Your task to perform on an android device: open the mobile data screen to see how much data has been used Image 0: 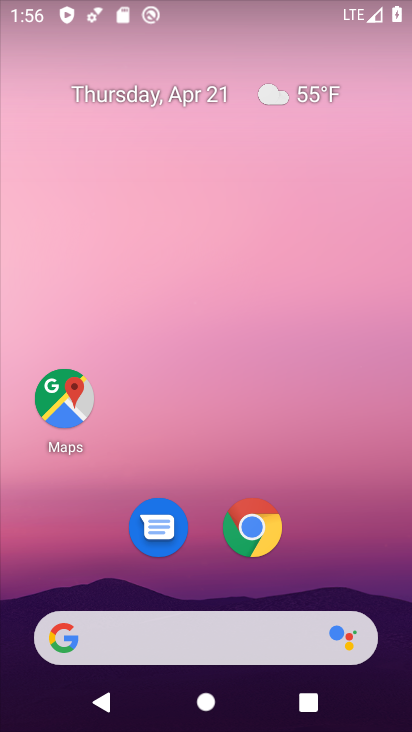
Step 0: drag from (370, 572) to (380, 183)
Your task to perform on an android device: open the mobile data screen to see how much data has been used Image 1: 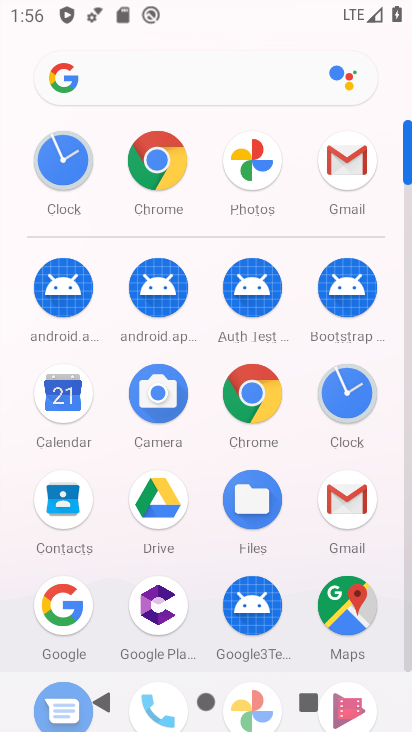
Step 1: drag from (195, 494) to (205, 382)
Your task to perform on an android device: open the mobile data screen to see how much data has been used Image 2: 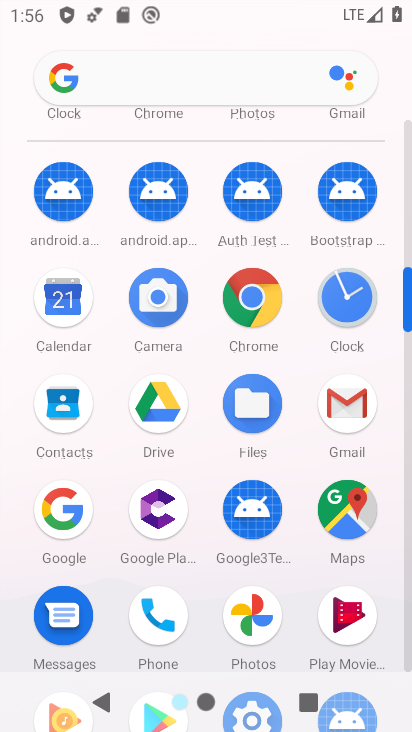
Step 2: drag from (189, 545) to (207, 429)
Your task to perform on an android device: open the mobile data screen to see how much data has been used Image 3: 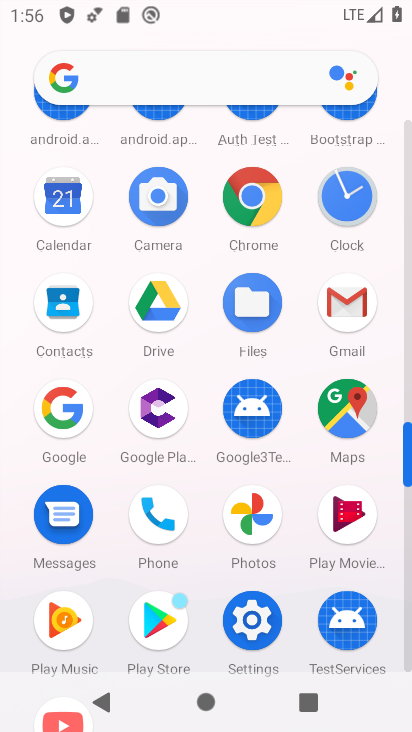
Step 3: drag from (204, 499) to (199, 379)
Your task to perform on an android device: open the mobile data screen to see how much data has been used Image 4: 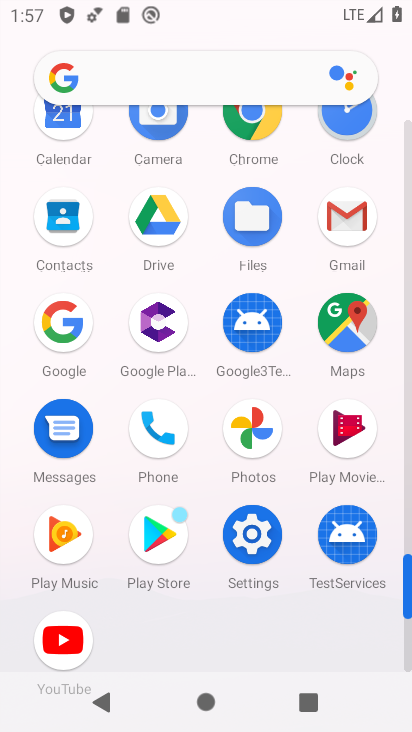
Step 4: drag from (196, 446) to (199, 332)
Your task to perform on an android device: open the mobile data screen to see how much data has been used Image 5: 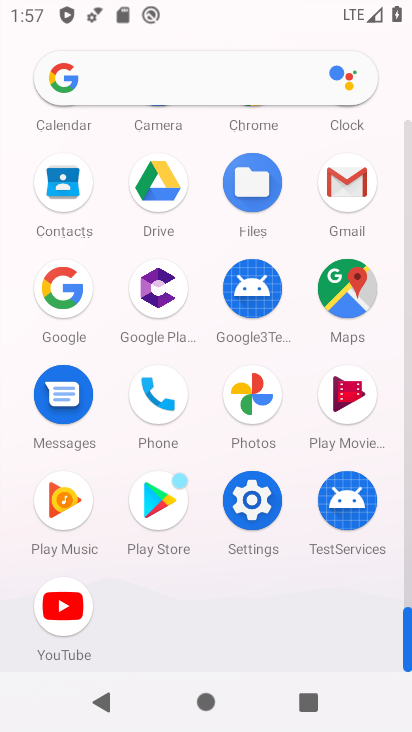
Step 5: click (244, 507)
Your task to perform on an android device: open the mobile data screen to see how much data has been used Image 6: 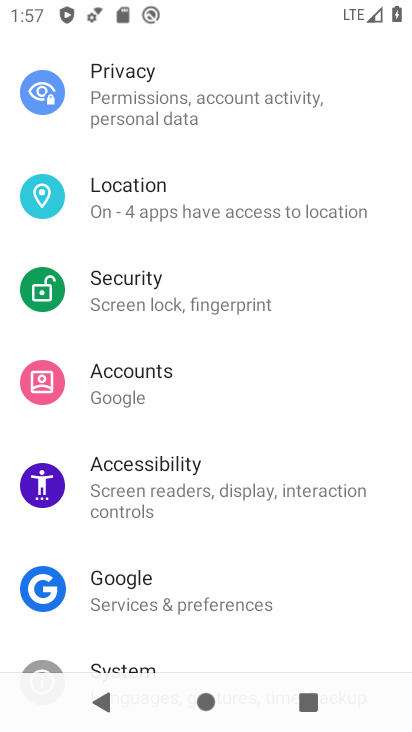
Step 6: drag from (374, 420) to (376, 329)
Your task to perform on an android device: open the mobile data screen to see how much data has been used Image 7: 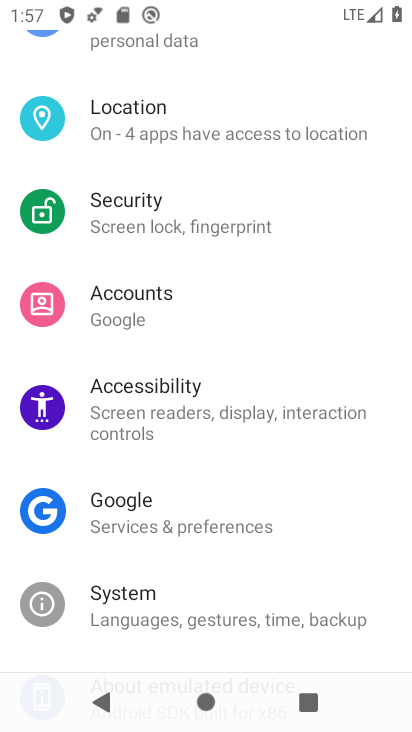
Step 7: drag from (376, 329) to (373, 250)
Your task to perform on an android device: open the mobile data screen to see how much data has been used Image 8: 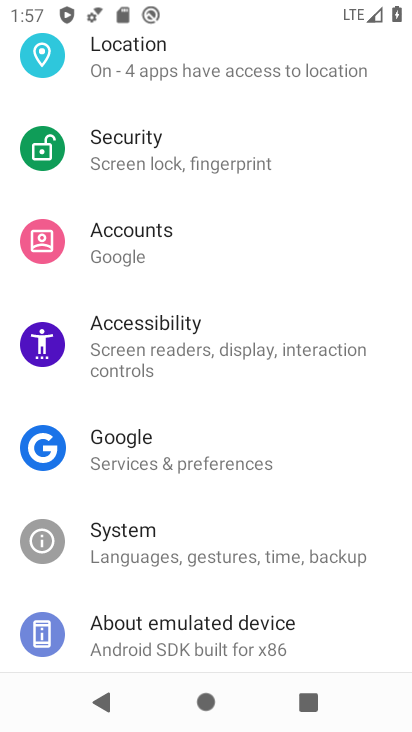
Step 8: drag from (359, 427) to (370, 344)
Your task to perform on an android device: open the mobile data screen to see how much data has been used Image 9: 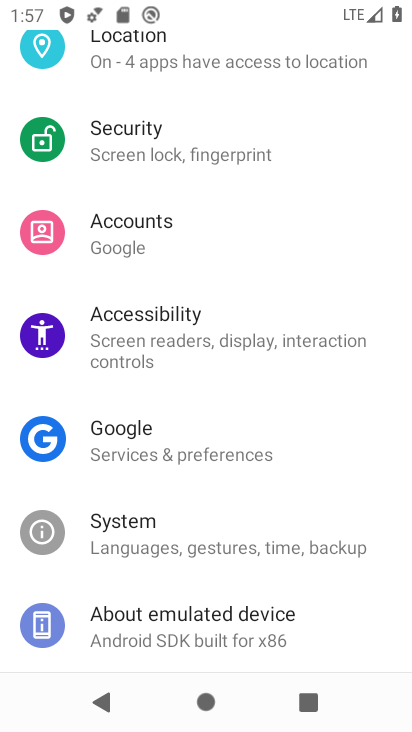
Step 9: drag from (359, 402) to (365, 309)
Your task to perform on an android device: open the mobile data screen to see how much data has been used Image 10: 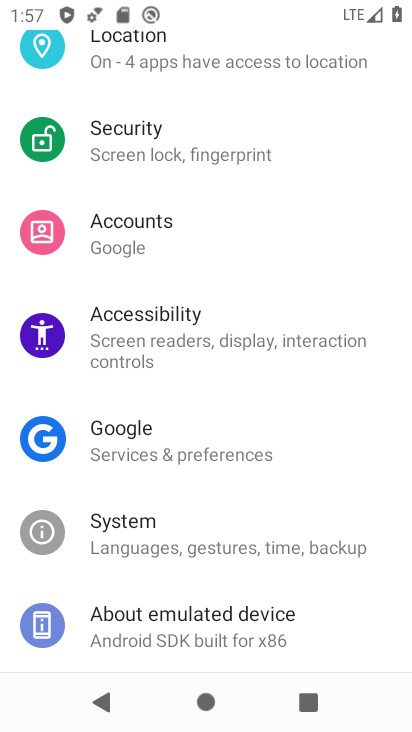
Step 10: drag from (338, 420) to (340, 364)
Your task to perform on an android device: open the mobile data screen to see how much data has been used Image 11: 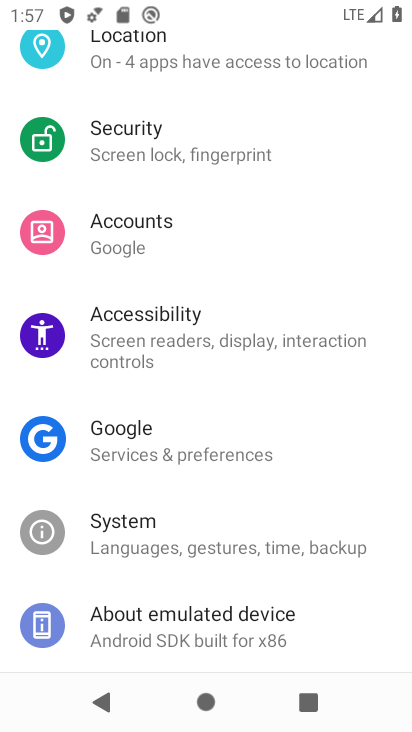
Step 11: drag from (364, 238) to (366, 352)
Your task to perform on an android device: open the mobile data screen to see how much data has been used Image 12: 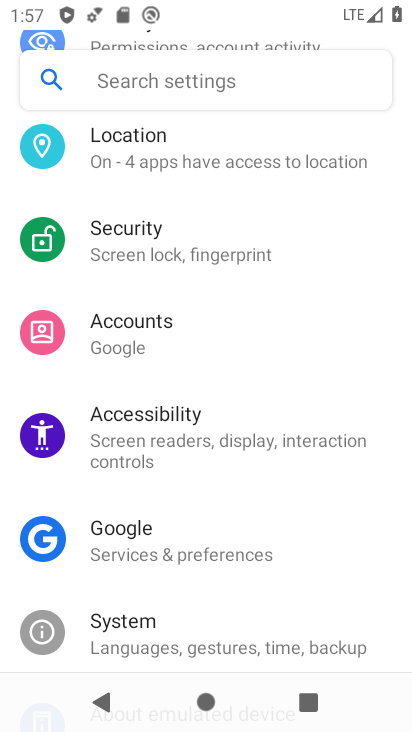
Step 12: drag from (374, 269) to (373, 367)
Your task to perform on an android device: open the mobile data screen to see how much data has been used Image 13: 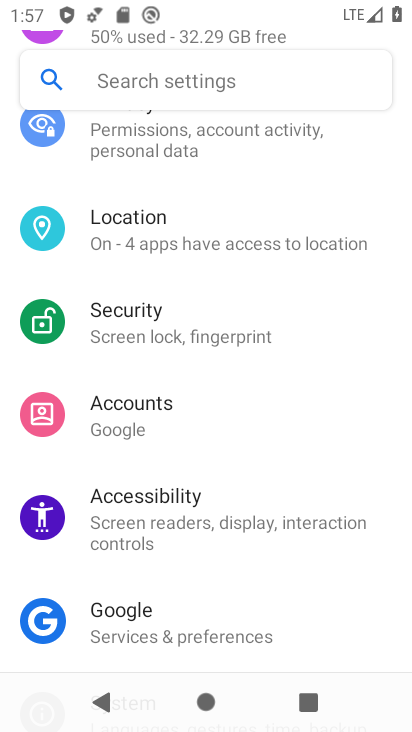
Step 13: drag from (384, 263) to (378, 359)
Your task to perform on an android device: open the mobile data screen to see how much data has been used Image 14: 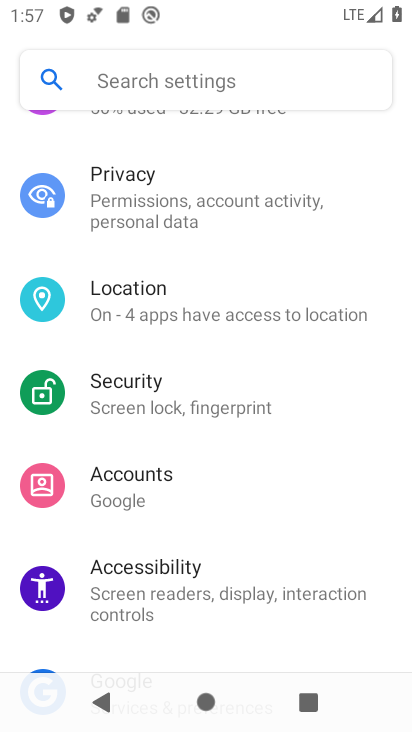
Step 14: drag from (379, 329) to (377, 371)
Your task to perform on an android device: open the mobile data screen to see how much data has been used Image 15: 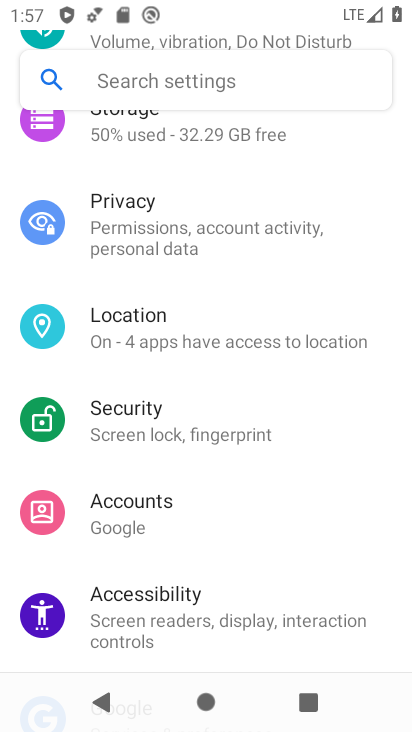
Step 15: drag from (339, 251) to (357, 365)
Your task to perform on an android device: open the mobile data screen to see how much data has been used Image 16: 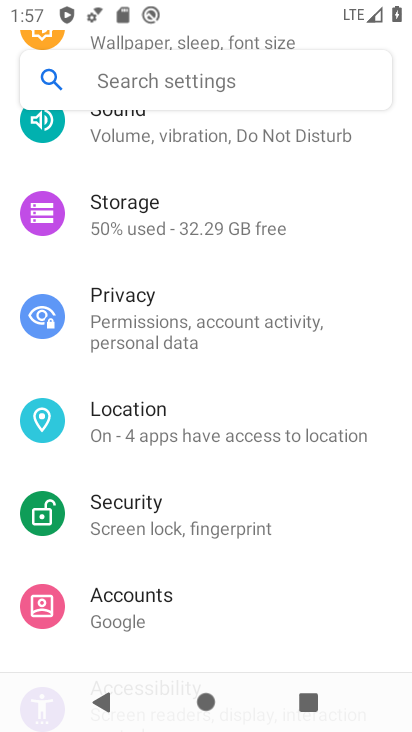
Step 16: drag from (361, 237) to (350, 362)
Your task to perform on an android device: open the mobile data screen to see how much data has been used Image 17: 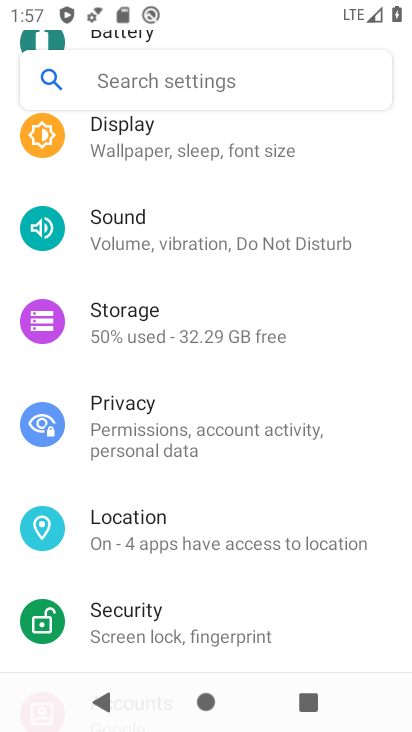
Step 17: drag from (369, 219) to (363, 354)
Your task to perform on an android device: open the mobile data screen to see how much data has been used Image 18: 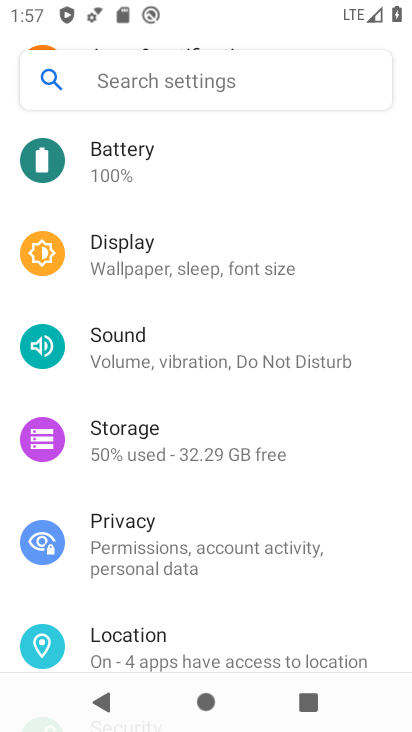
Step 18: drag from (376, 237) to (376, 364)
Your task to perform on an android device: open the mobile data screen to see how much data has been used Image 19: 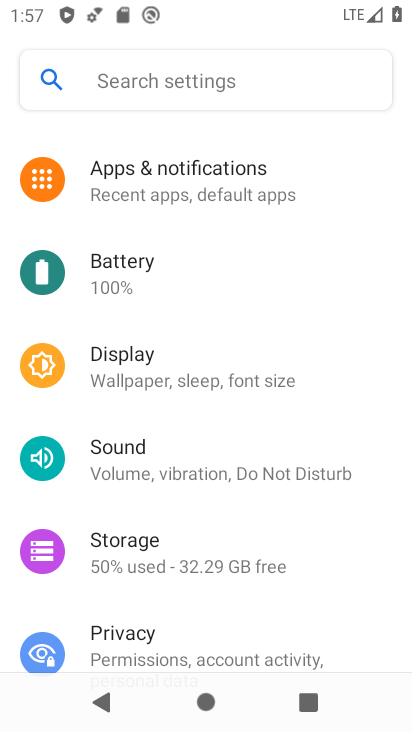
Step 19: drag from (355, 230) to (359, 339)
Your task to perform on an android device: open the mobile data screen to see how much data has been used Image 20: 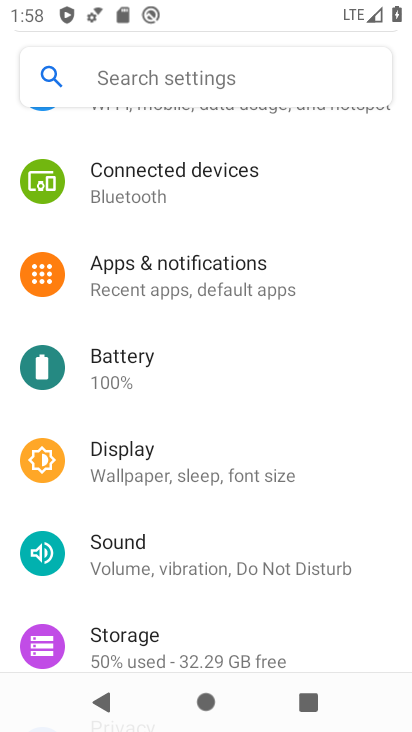
Step 20: drag from (344, 212) to (314, 375)
Your task to perform on an android device: open the mobile data screen to see how much data has been used Image 21: 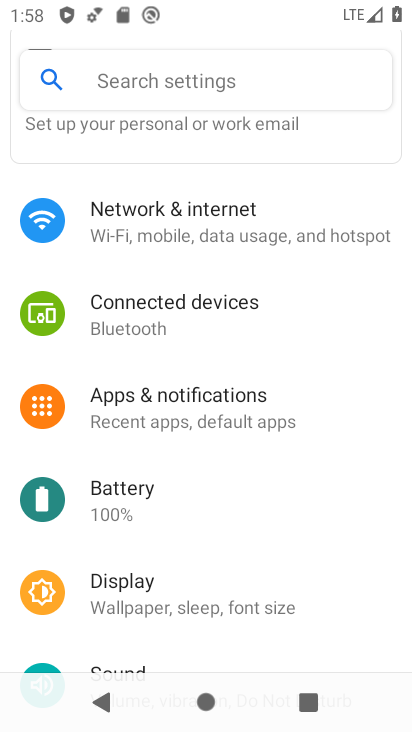
Step 21: click (321, 233)
Your task to perform on an android device: open the mobile data screen to see how much data has been used Image 22: 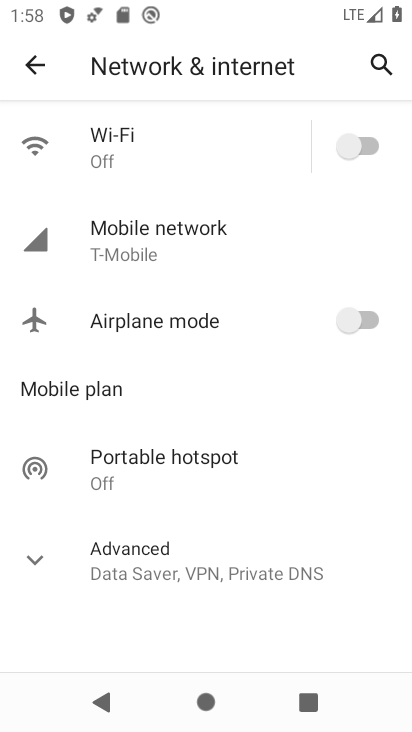
Step 22: click (218, 222)
Your task to perform on an android device: open the mobile data screen to see how much data has been used Image 23: 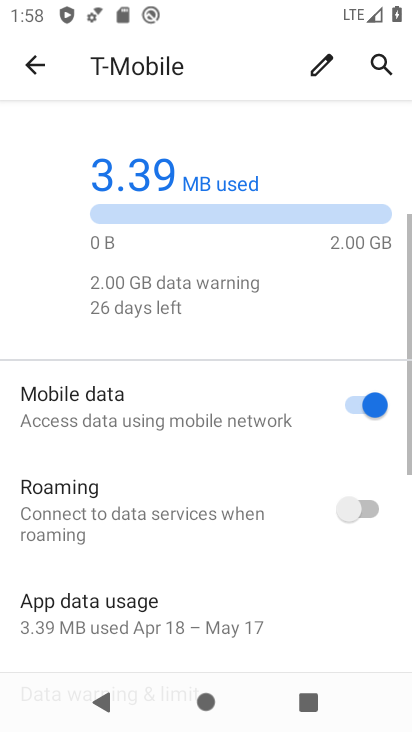
Step 23: drag from (284, 512) to (285, 405)
Your task to perform on an android device: open the mobile data screen to see how much data has been used Image 24: 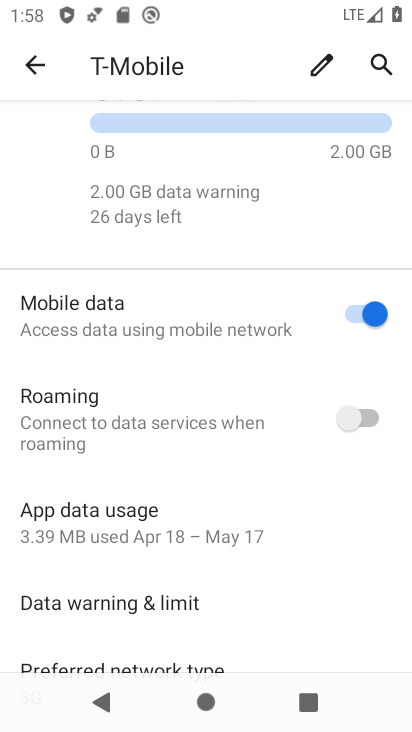
Step 24: drag from (277, 525) to (276, 477)
Your task to perform on an android device: open the mobile data screen to see how much data has been used Image 25: 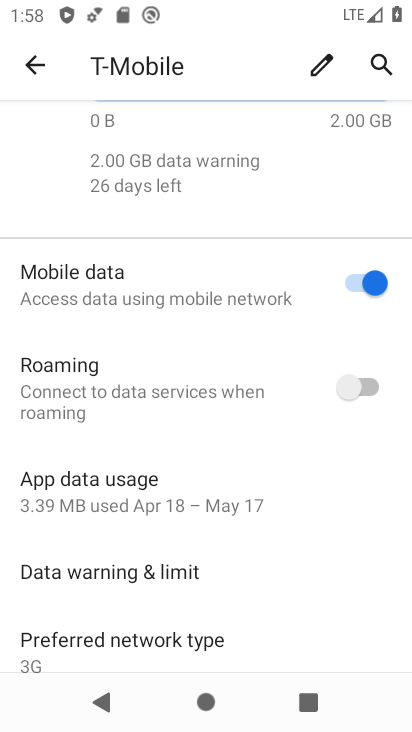
Step 25: click (265, 516)
Your task to perform on an android device: open the mobile data screen to see how much data has been used Image 26: 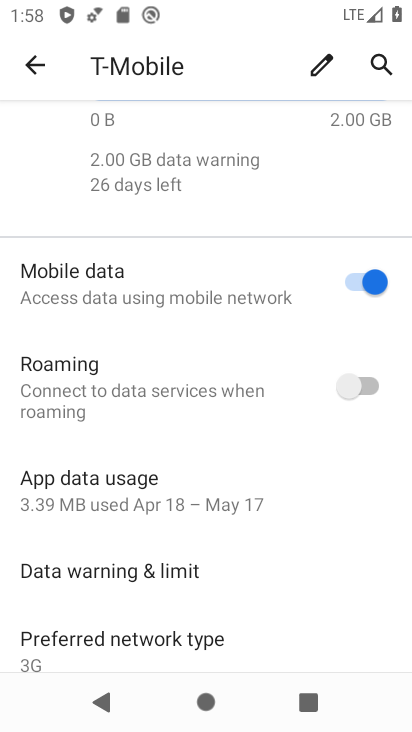
Step 26: drag from (269, 536) to (284, 470)
Your task to perform on an android device: open the mobile data screen to see how much data has been used Image 27: 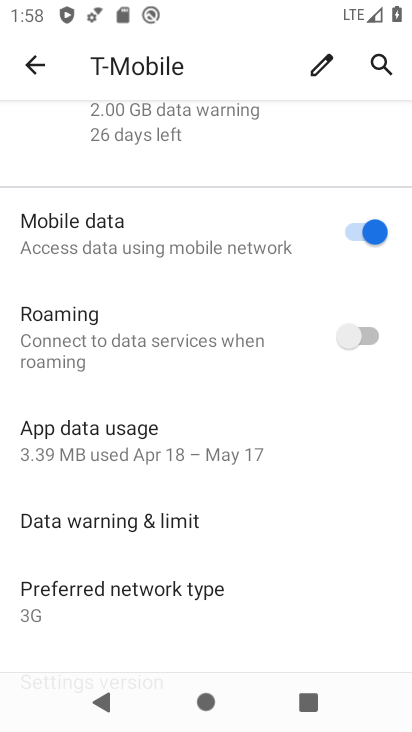
Step 27: click (278, 502)
Your task to perform on an android device: open the mobile data screen to see how much data has been used Image 28: 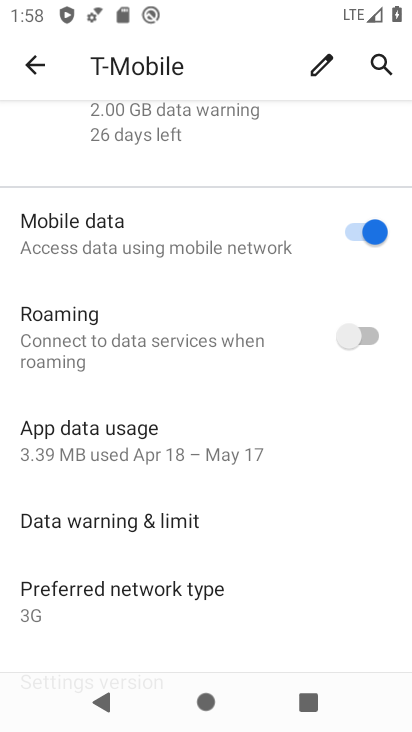
Step 28: click (275, 516)
Your task to perform on an android device: open the mobile data screen to see how much data has been used Image 29: 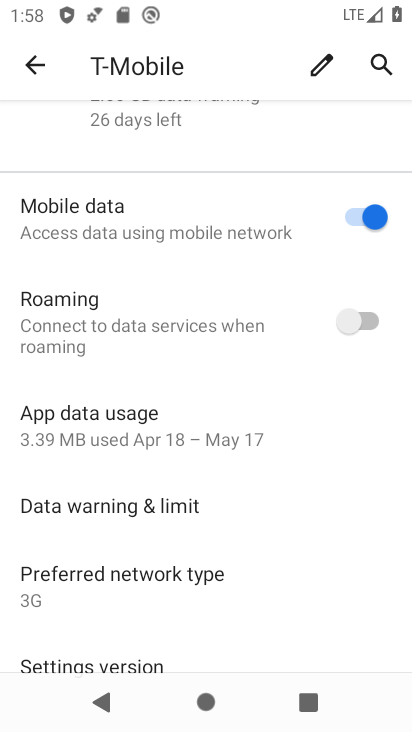
Step 29: drag from (291, 549) to (304, 493)
Your task to perform on an android device: open the mobile data screen to see how much data has been used Image 30: 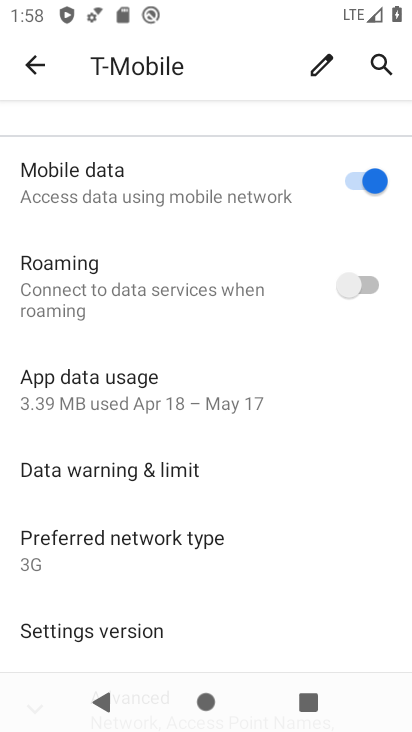
Step 30: click (227, 396)
Your task to perform on an android device: open the mobile data screen to see how much data has been used Image 31: 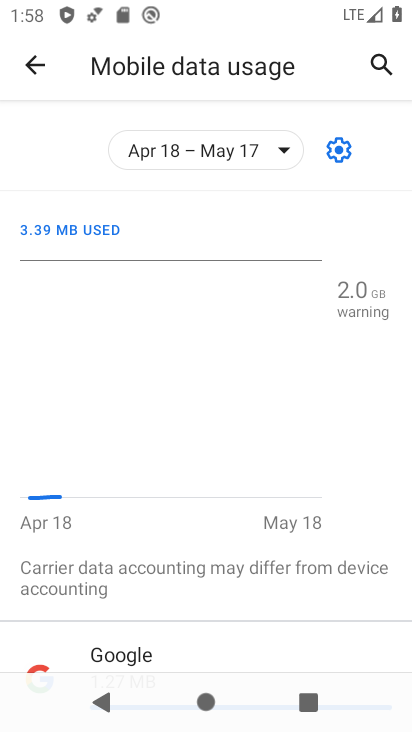
Step 31: task complete